Your task to perform on an android device: toggle translation in the chrome app Image 0: 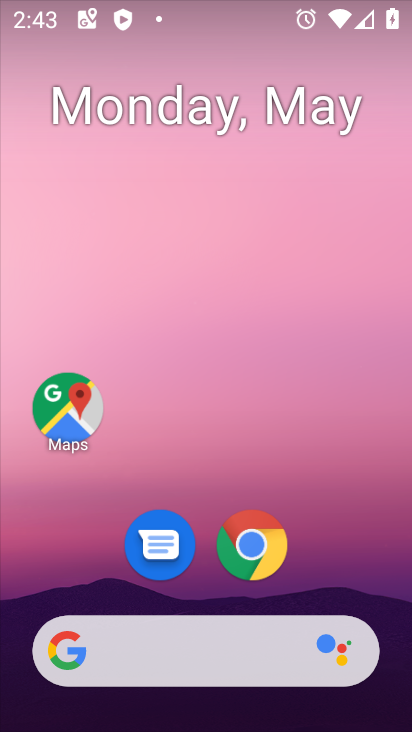
Step 0: click (240, 544)
Your task to perform on an android device: toggle translation in the chrome app Image 1: 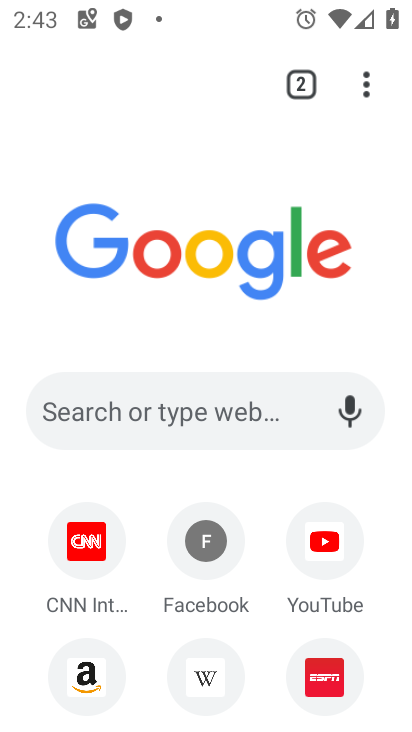
Step 1: click (378, 78)
Your task to perform on an android device: toggle translation in the chrome app Image 2: 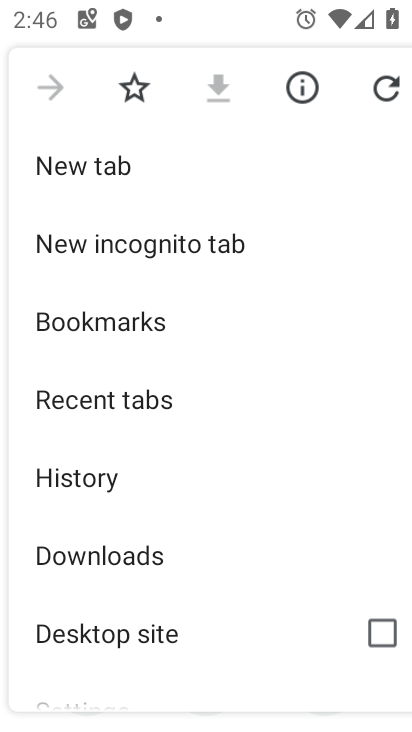
Step 2: drag from (174, 527) to (137, 185)
Your task to perform on an android device: toggle translation in the chrome app Image 3: 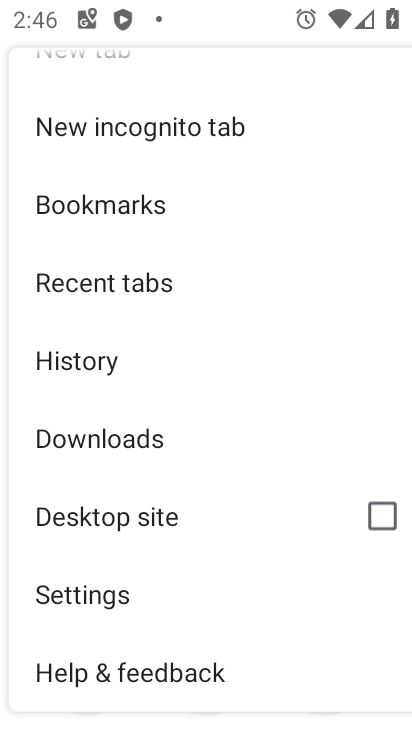
Step 3: click (114, 591)
Your task to perform on an android device: toggle translation in the chrome app Image 4: 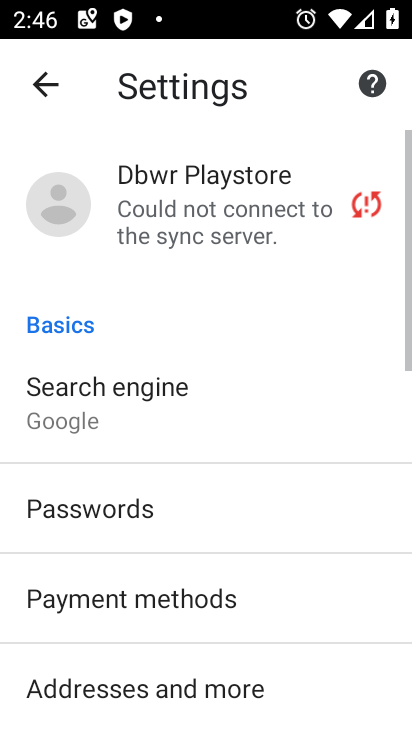
Step 4: drag from (173, 583) to (127, 152)
Your task to perform on an android device: toggle translation in the chrome app Image 5: 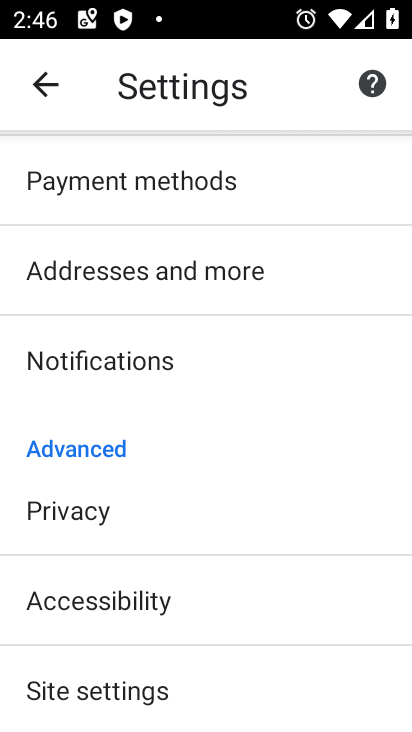
Step 5: drag from (118, 535) to (120, 171)
Your task to perform on an android device: toggle translation in the chrome app Image 6: 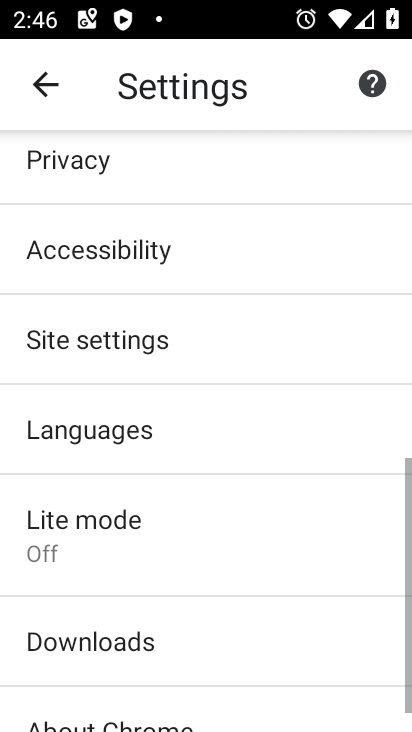
Step 6: click (182, 404)
Your task to perform on an android device: toggle translation in the chrome app Image 7: 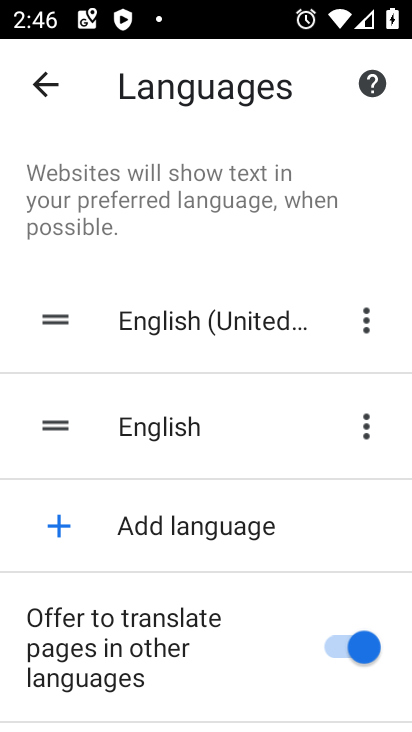
Step 7: click (365, 639)
Your task to perform on an android device: toggle translation in the chrome app Image 8: 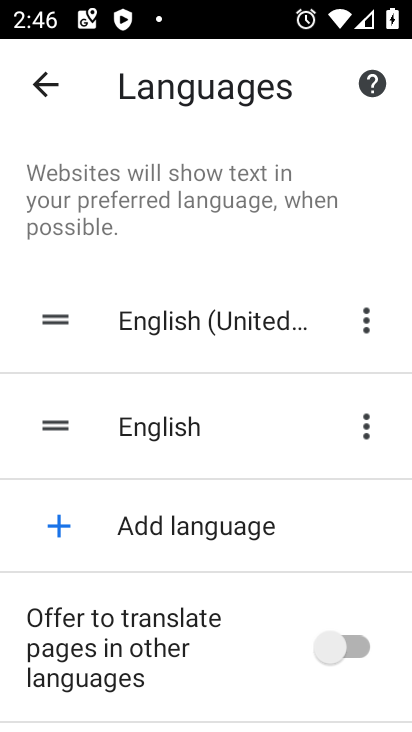
Step 8: task complete